Your task to perform on an android device: star an email in the gmail app Image 0: 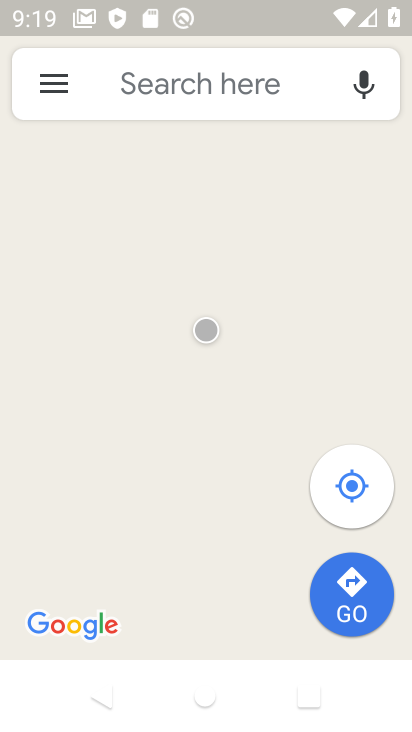
Step 0: press home button
Your task to perform on an android device: star an email in the gmail app Image 1: 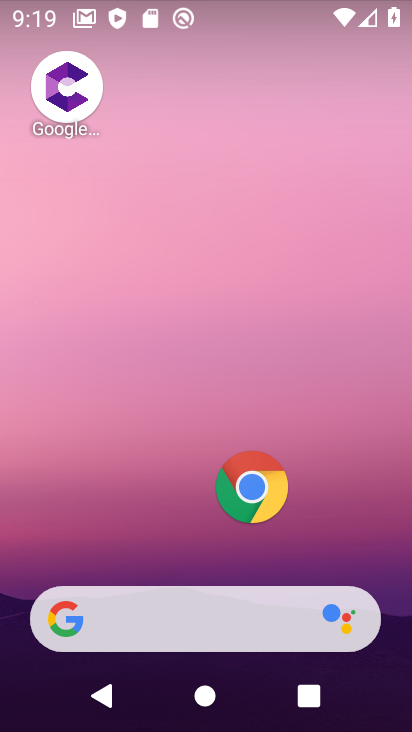
Step 1: drag from (269, 618) to (259, 106)
Your task to perform on an android device: star an email in the gmail app Image 2: 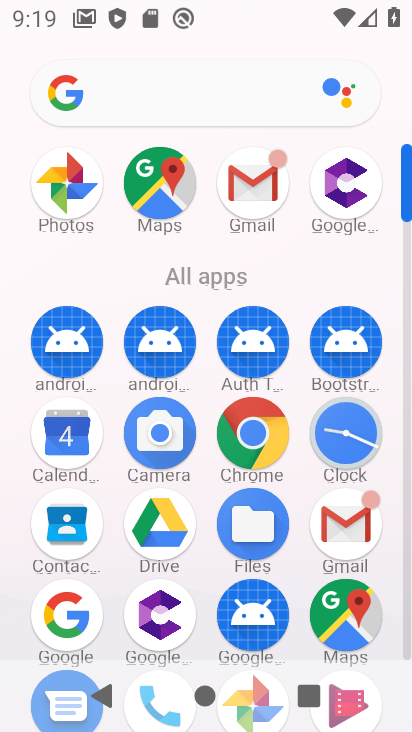
Step 2: click (263, 191)
Your task to perform on an android device: star an email in the gmail app Image 3: 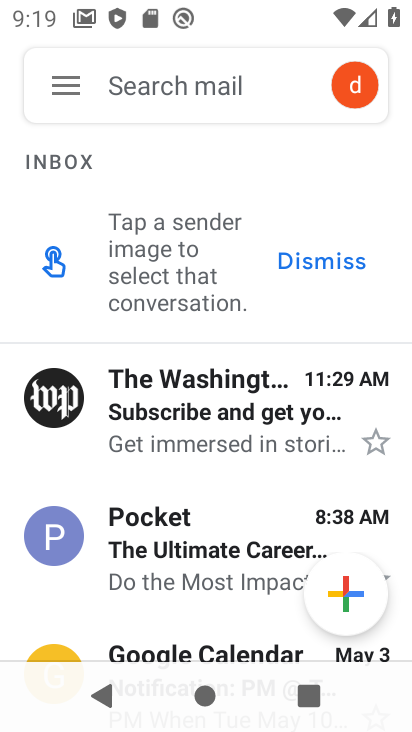
Step 3: click (379, 443)
Your task to perform on an android device: star an email in the gmail app Image 4: 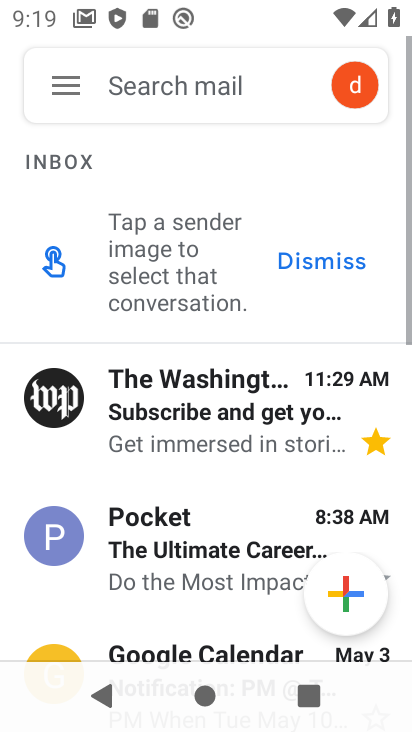
Step 4: task complete